Your task to perform on an android device: turn off wifi Image 0: 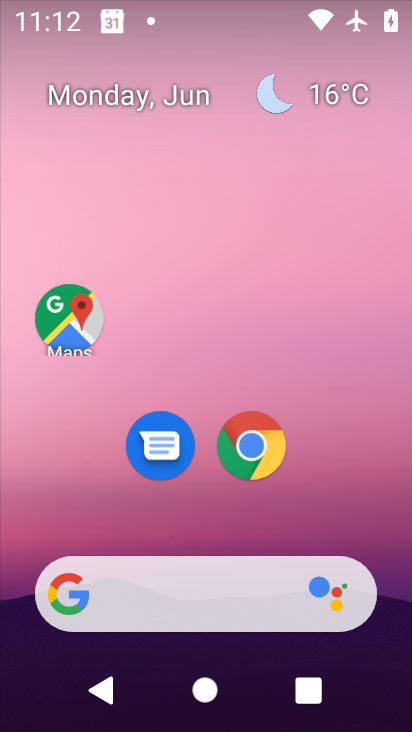
Step 0: press home button
Your task to perform on an android device: turn off wifi Image 1: 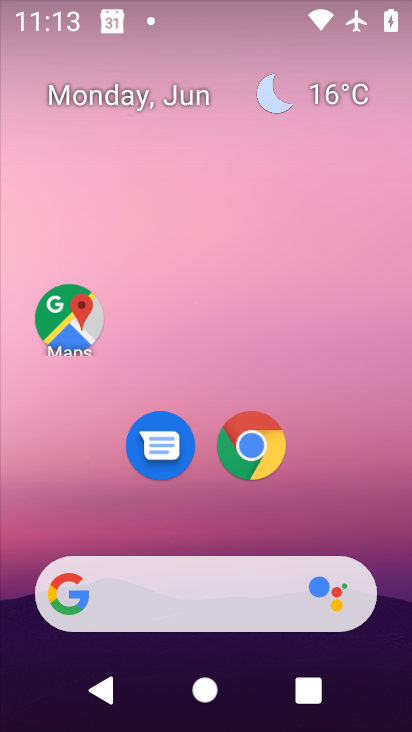
Step 1: drag from (213, 219) to (209, 503)
Your task to perform on an android device: turn off wifi Image 2: 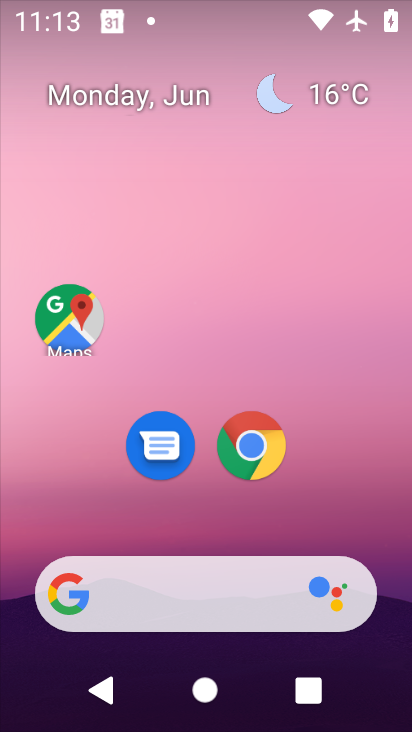
Step 2: drag from (194, 172) to (195, 506)
Your task to perform on an android device: turn off wifi Image 3: 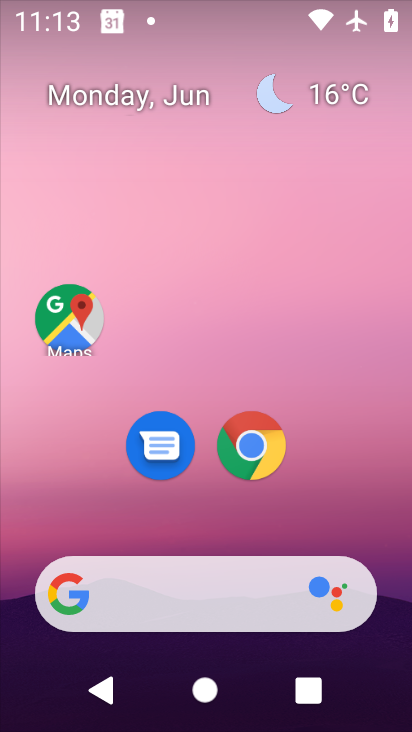
Step 3: drag from (215, 82) to (181, 643)
Your task to perform on an android device: turn off wifi Image 4: 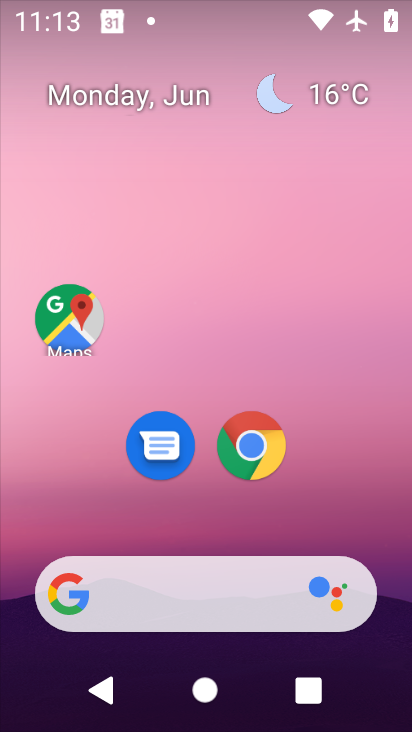
Step 4: drag from (218, 1) to (249, 723)
Your task to perform on an android device: turn off wifi Image 5: 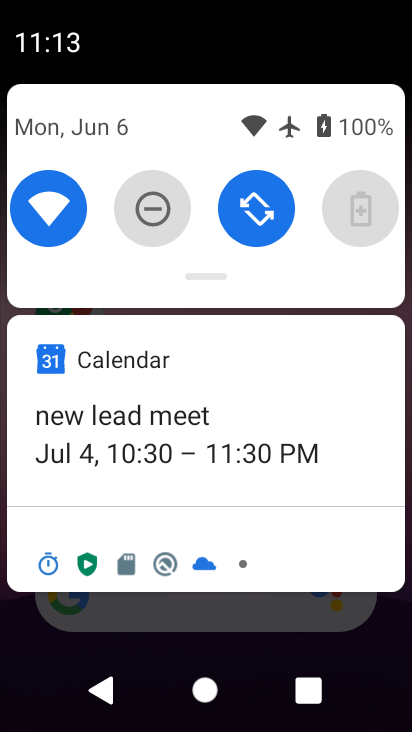
Step 5: click (41, 206)
Your task to perform on an android device: turn off wifi Image 6: 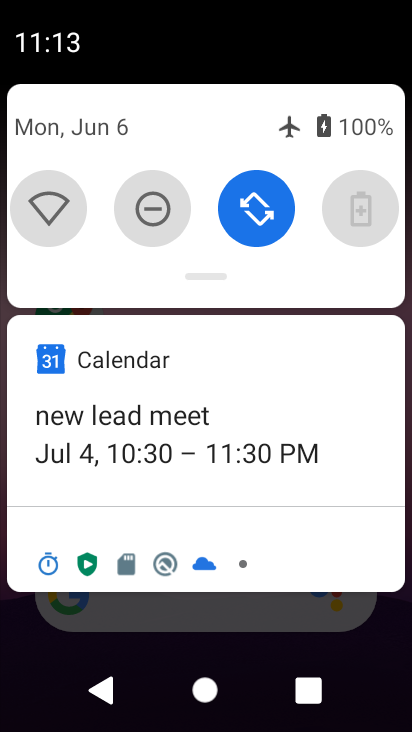
Step 6: task complete